Your task to perform on an android device: check data usage Image 0: 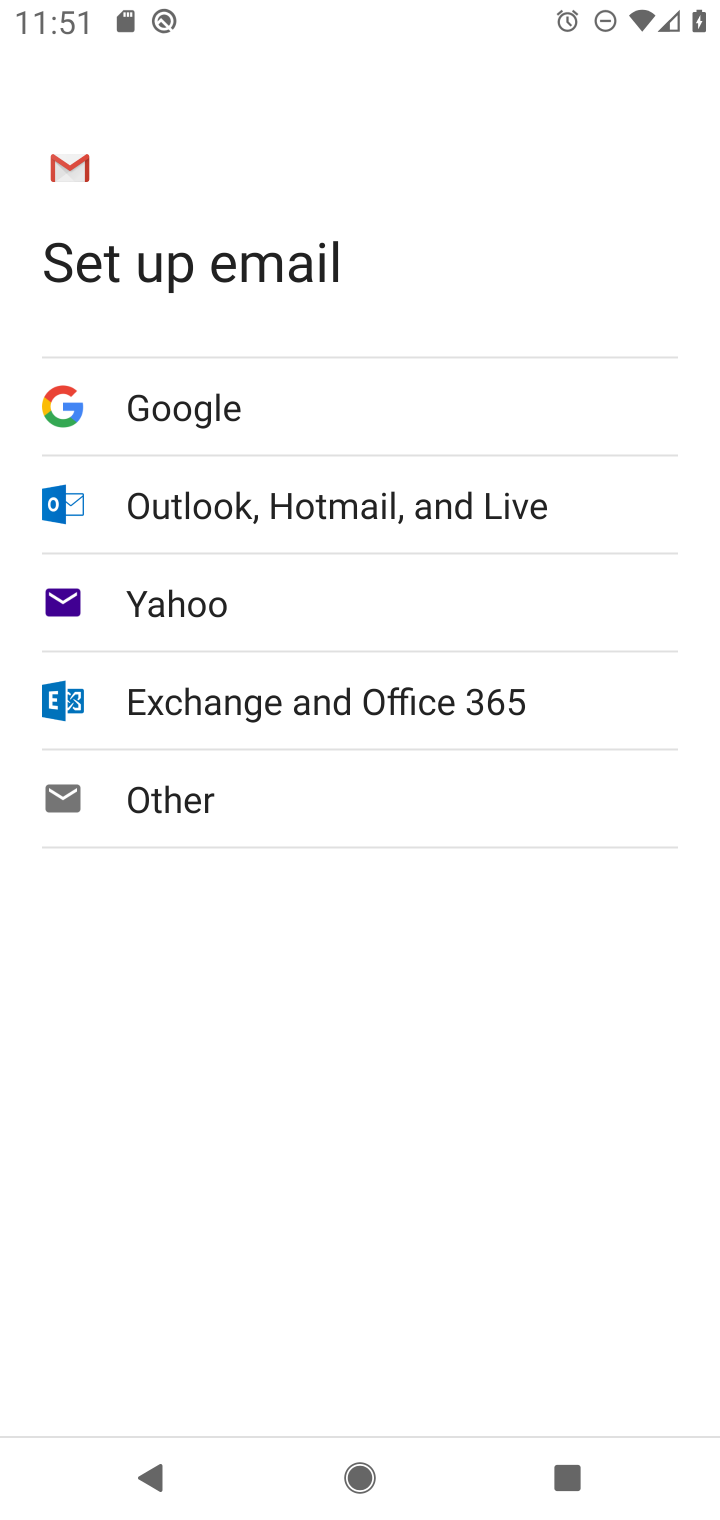
Step 0: press home button
Your task to perform on an android device: check data usage Image 1: 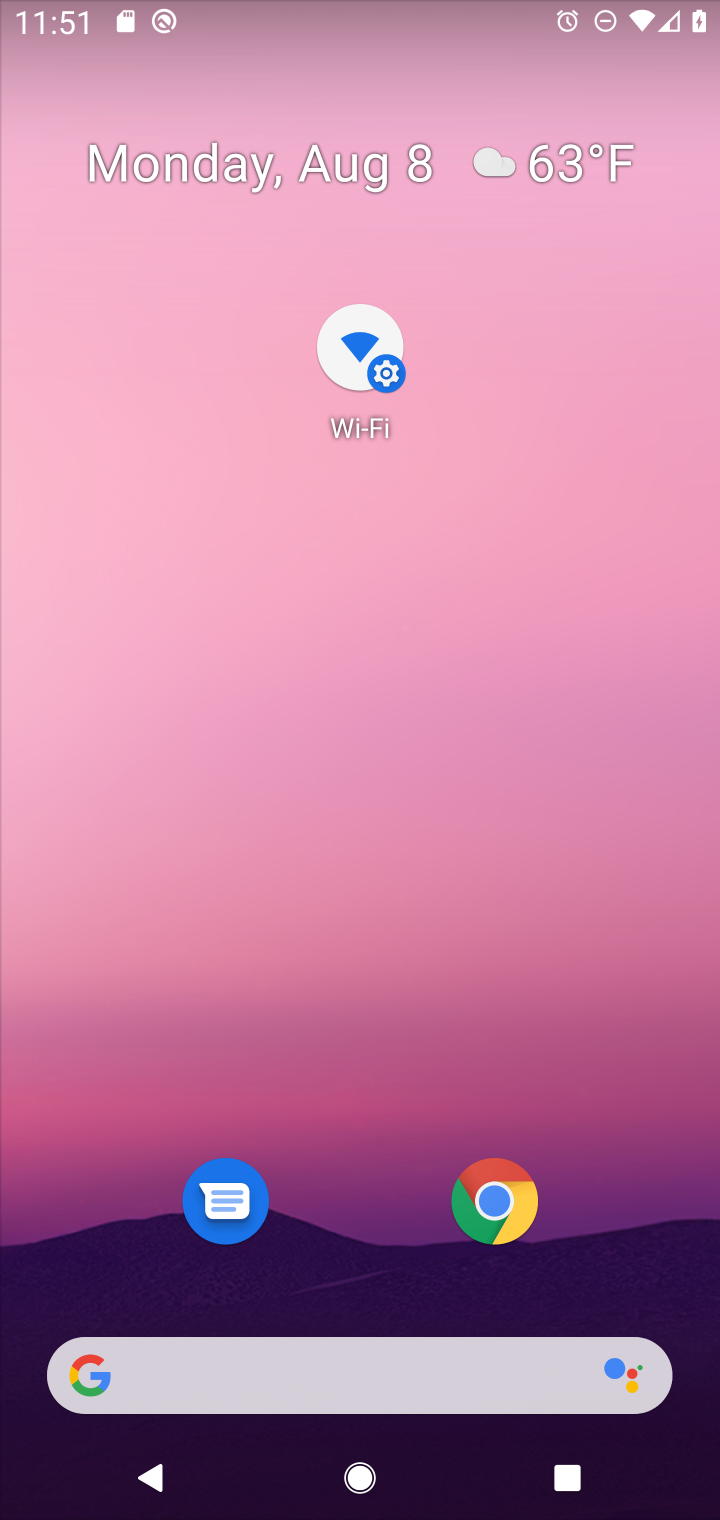
Step 1: drag from (611, 1125) to (604, 127)
Your task to perform on an android device: check data usage Image 2: 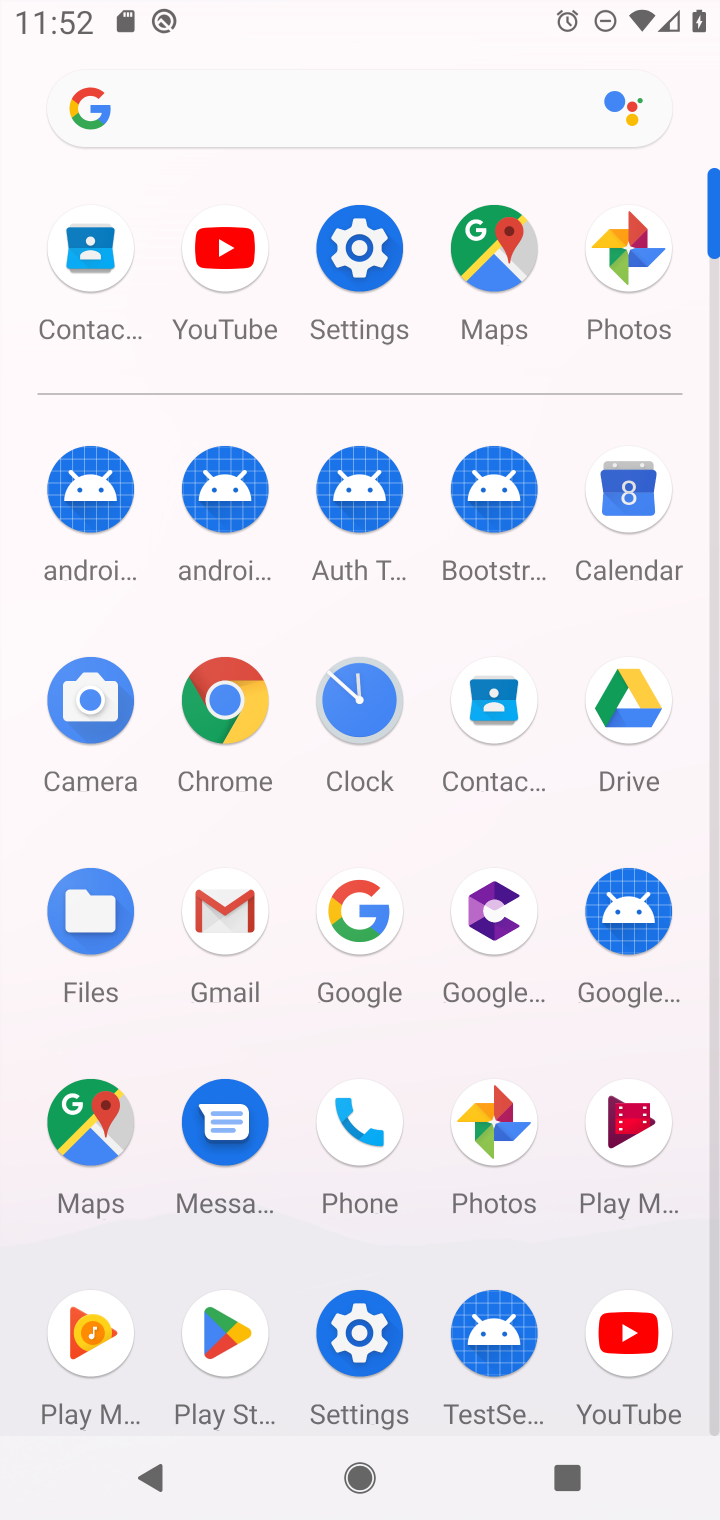
Step 2: click (357, 261)
Your task to perform on an android device: check data usage Image 3: 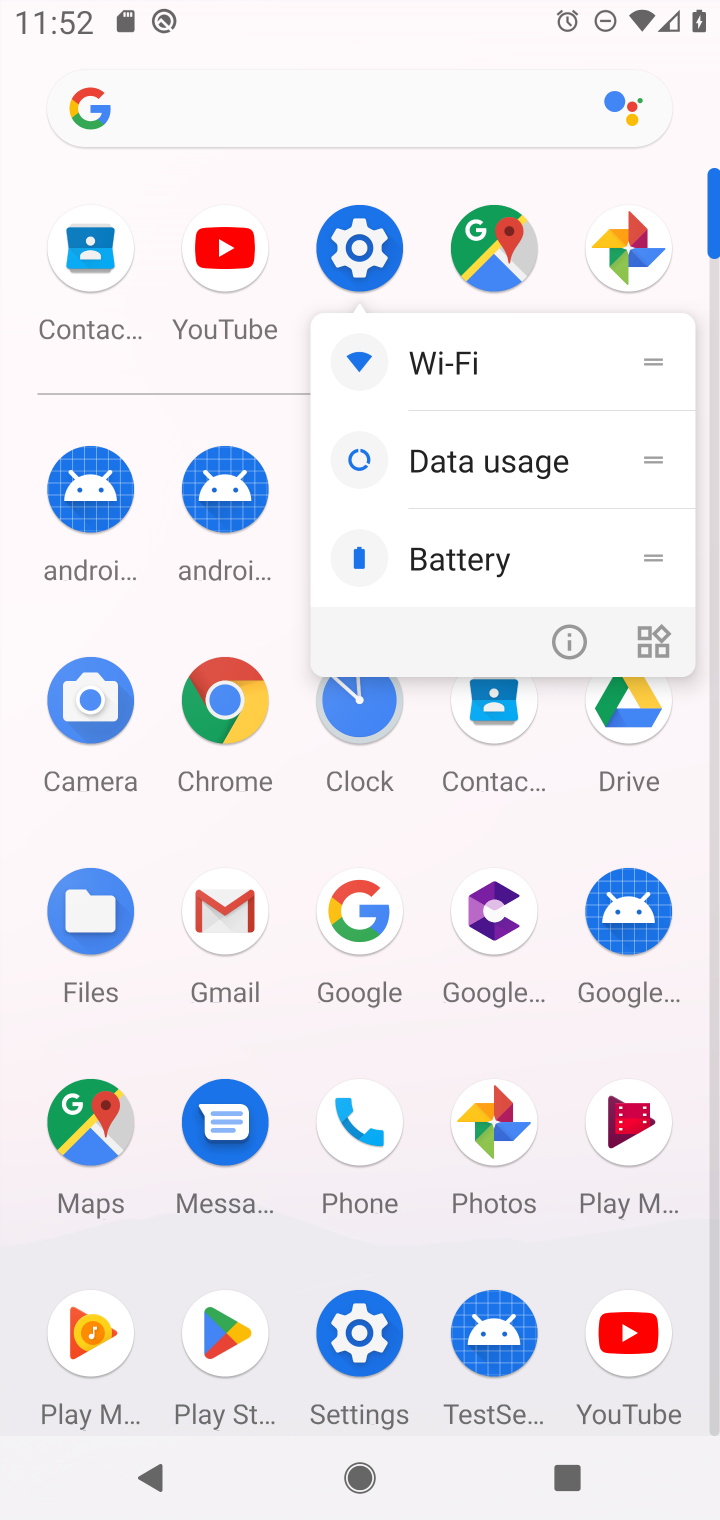
Step 3: click (357, 261)
Your task to perform on an android device: check data usage Image 4: 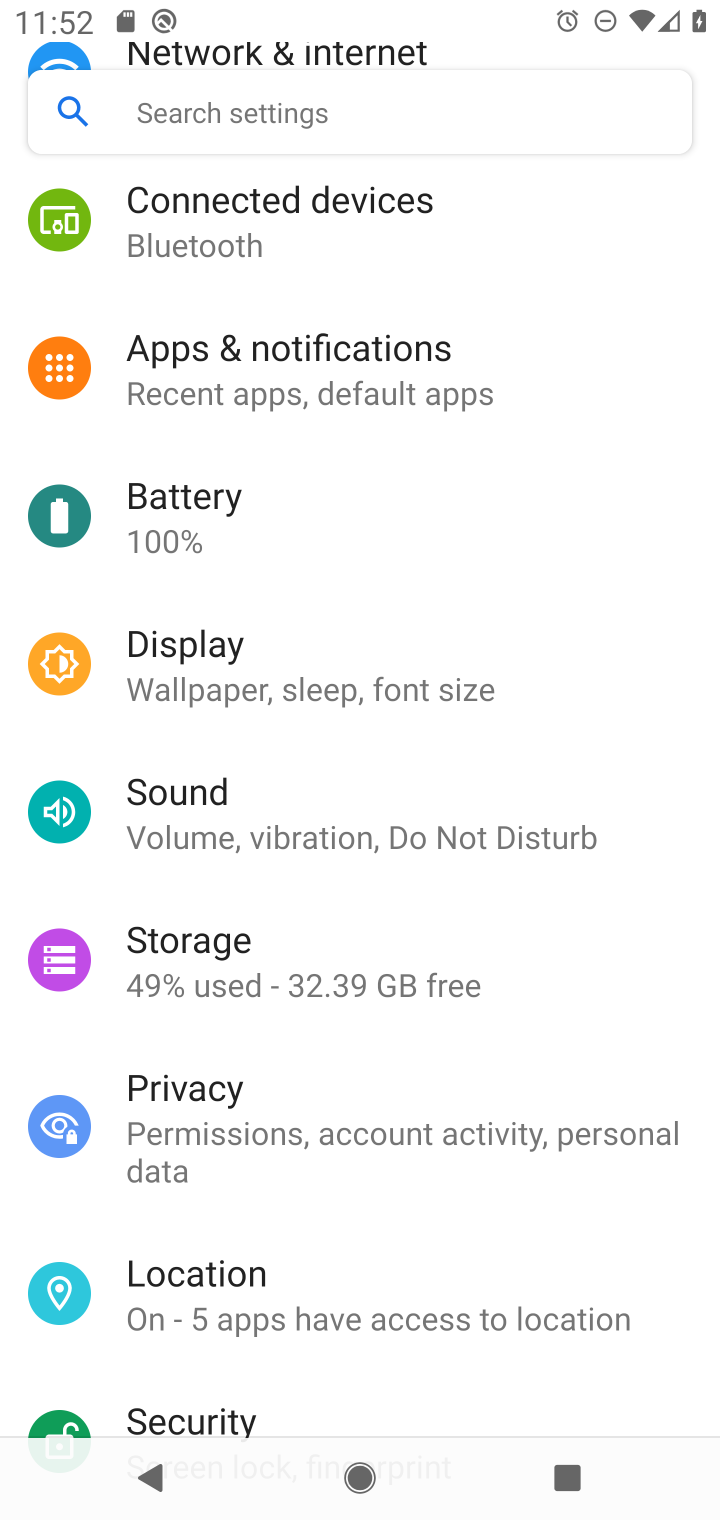
Step 4: drag from (649, 447) to (639, 812)
Your task to perform on an android device: check data usage Image 5: 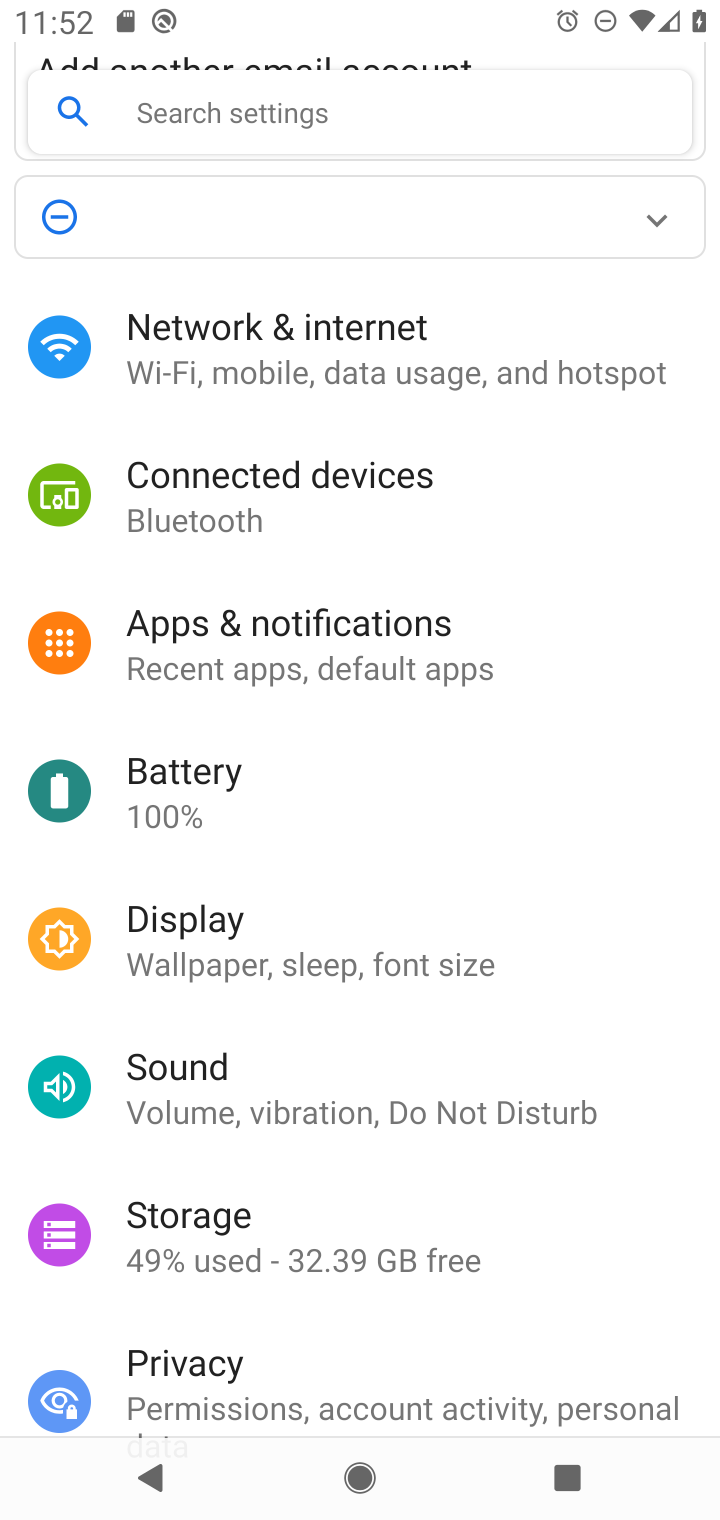
Step 5: drag from (604, 901) to (630, 482)
Your task to perform on an android device: check data usage Image 6: 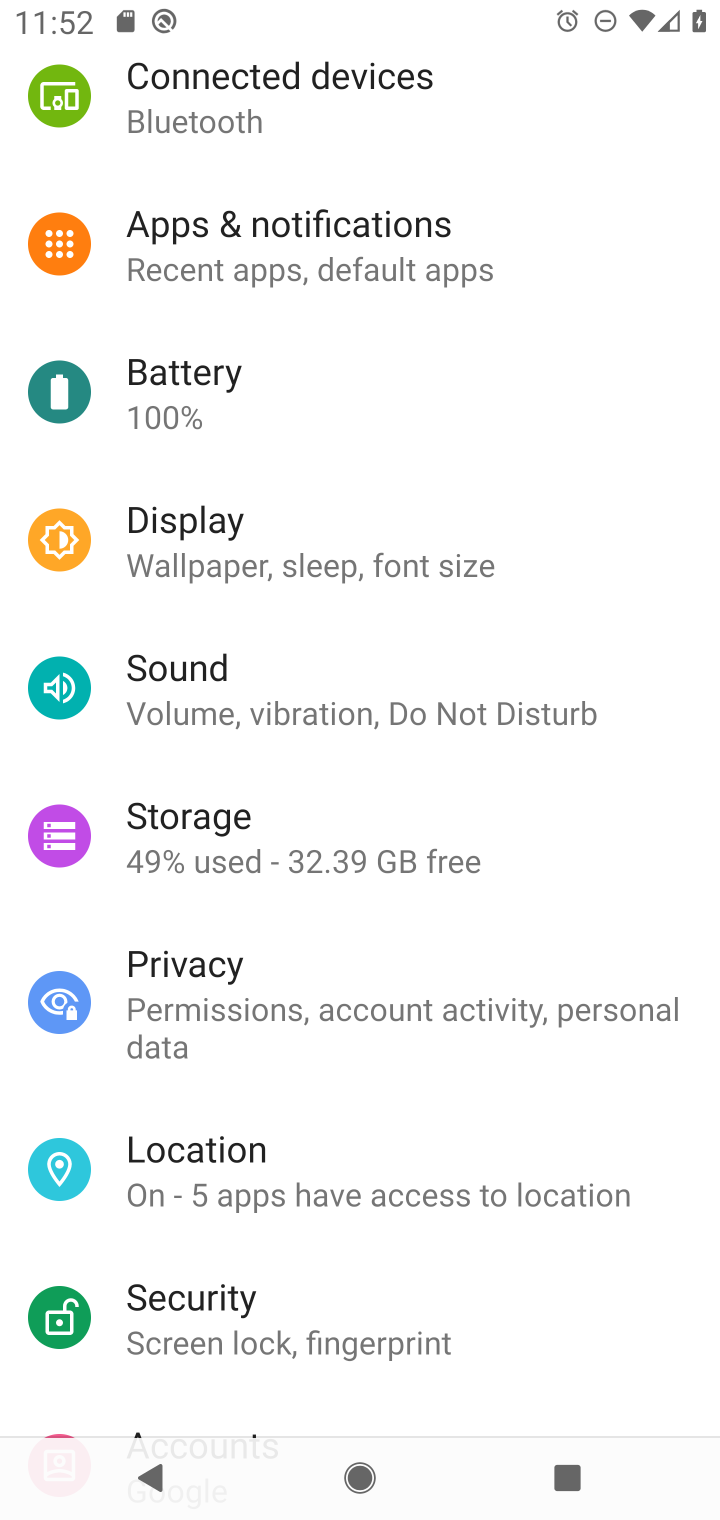
Step 6: drag from (621, 849) to (637, 459)
Your task to perform on an android device: check data usage Image 7: 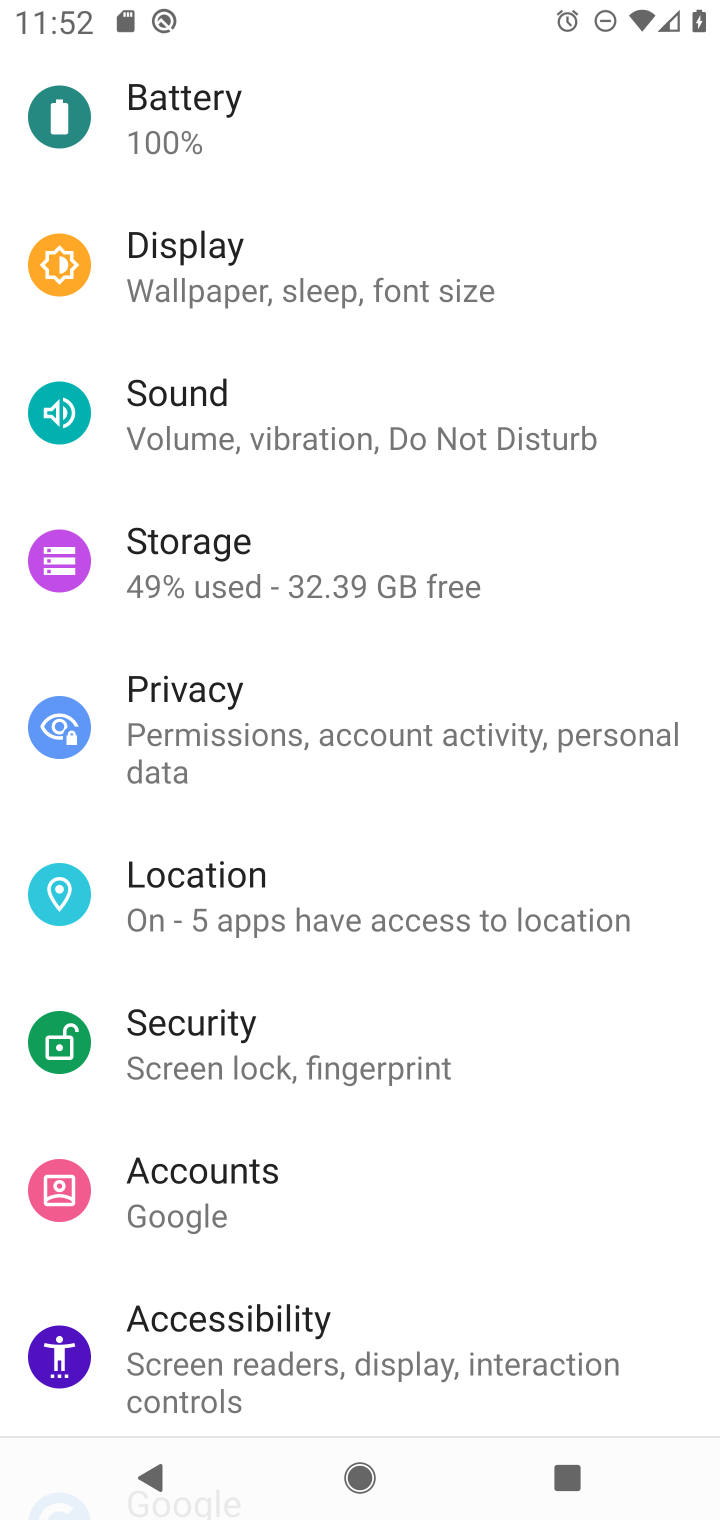
Step 7: drag from (619, 1112) to (663, 476)
Your task to perform on an android device: check data usage Image 8: 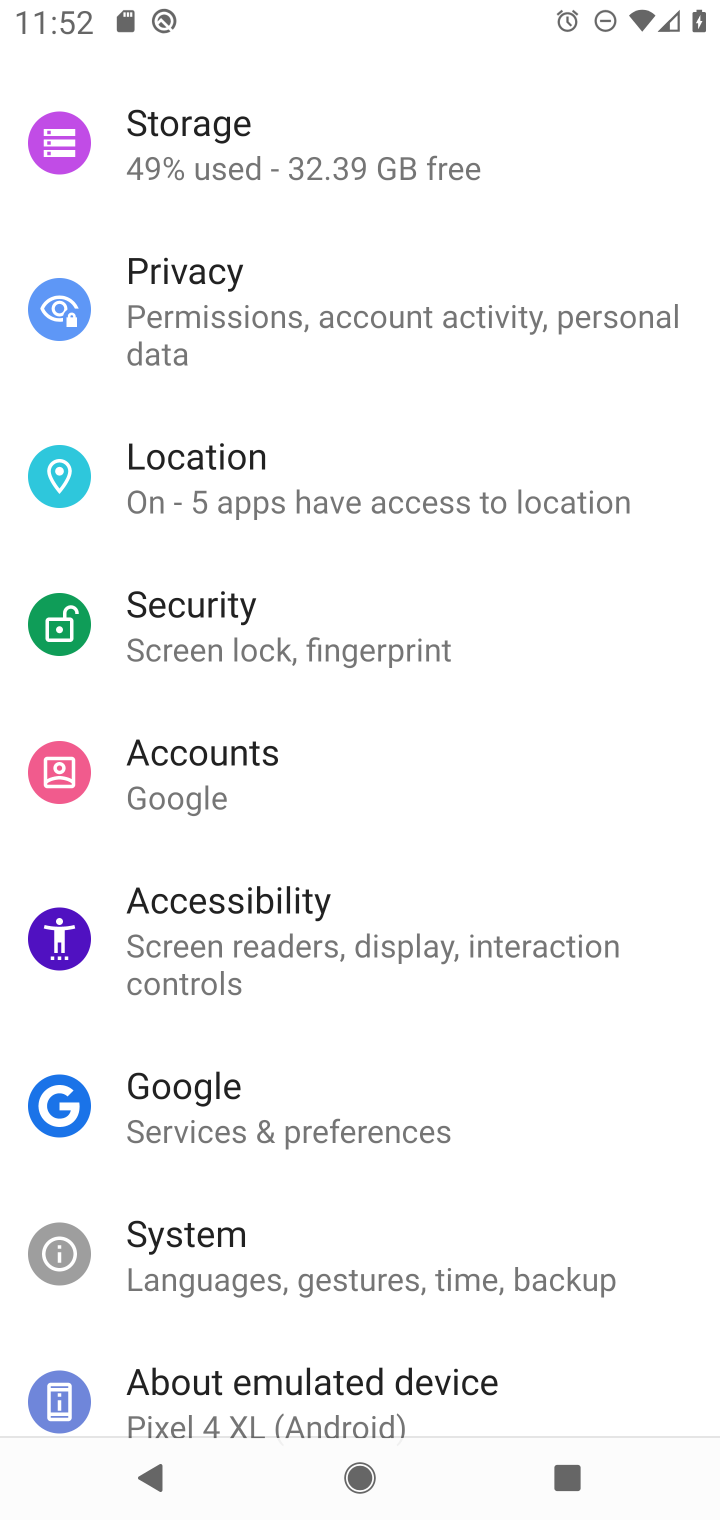
Step 8: drag from (620, 1025) to (635, 579)
Your task to perform on an android device: check data usage Image 9: 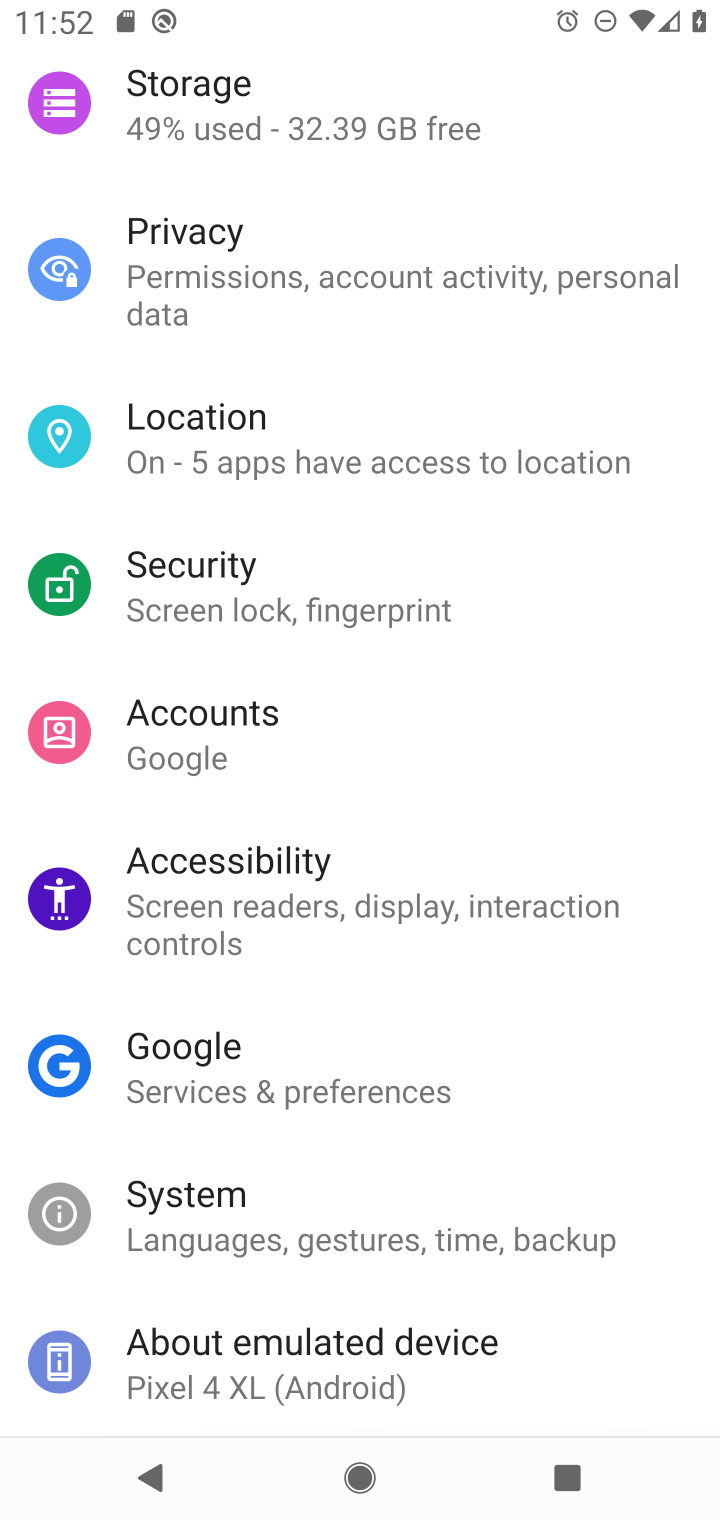
Step 9: drag from (598, 1045) to (627, 619)
Your task to perform on an android device: check data usage Image 10: 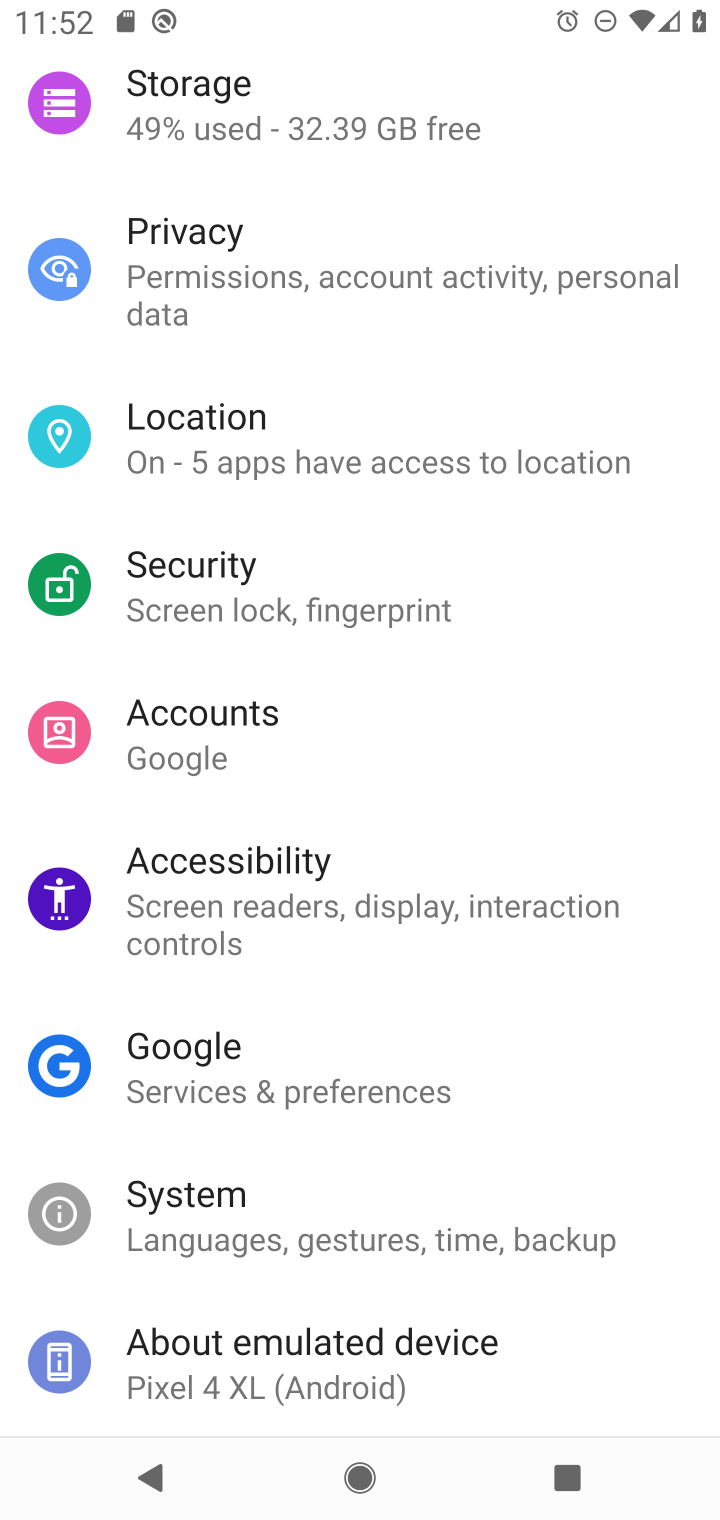
Step 10: drag from (619, 529) to (615, 892)
Your task to perform on an android device: check data usage Image 11: 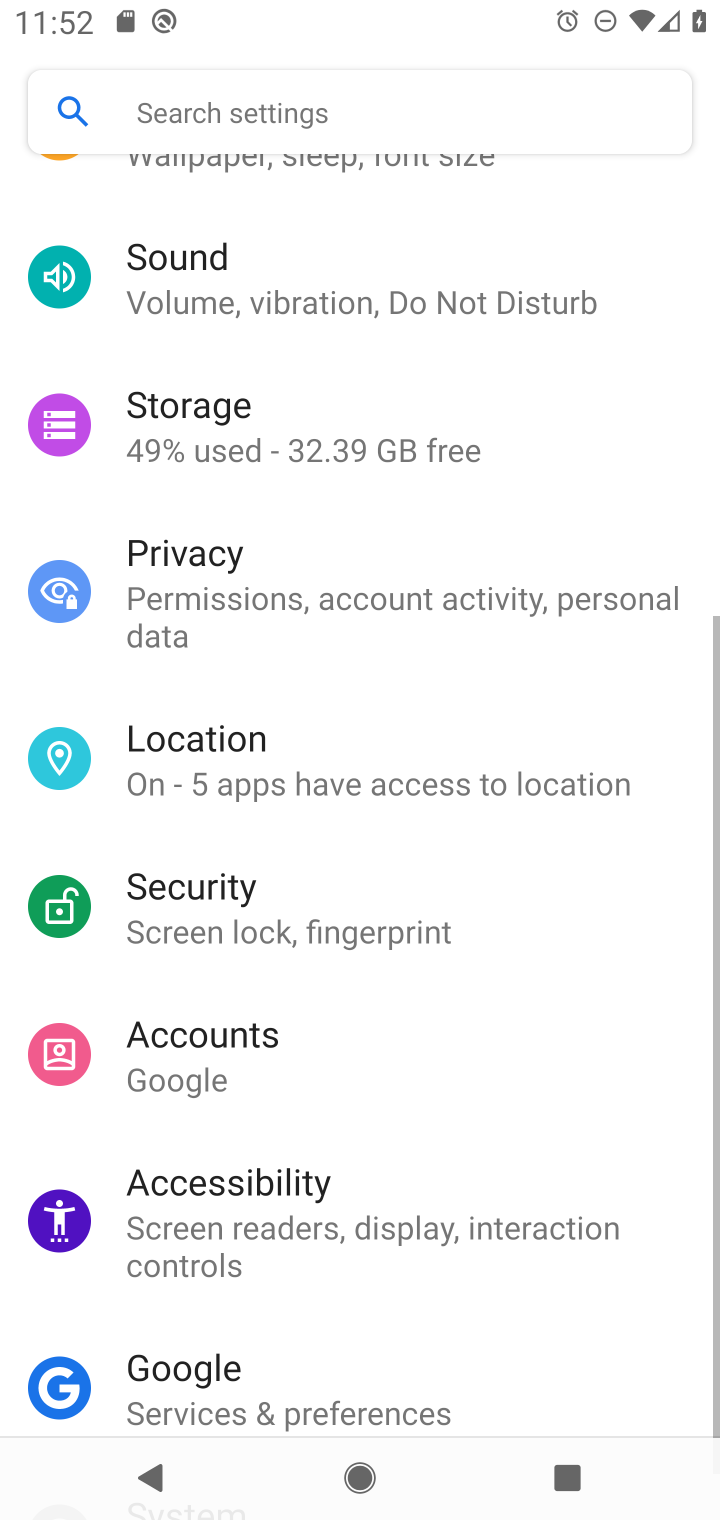
Step 11: drag from (622, 415) to (639, 919)
Your task to perform on an android device: check data usage Image 12: 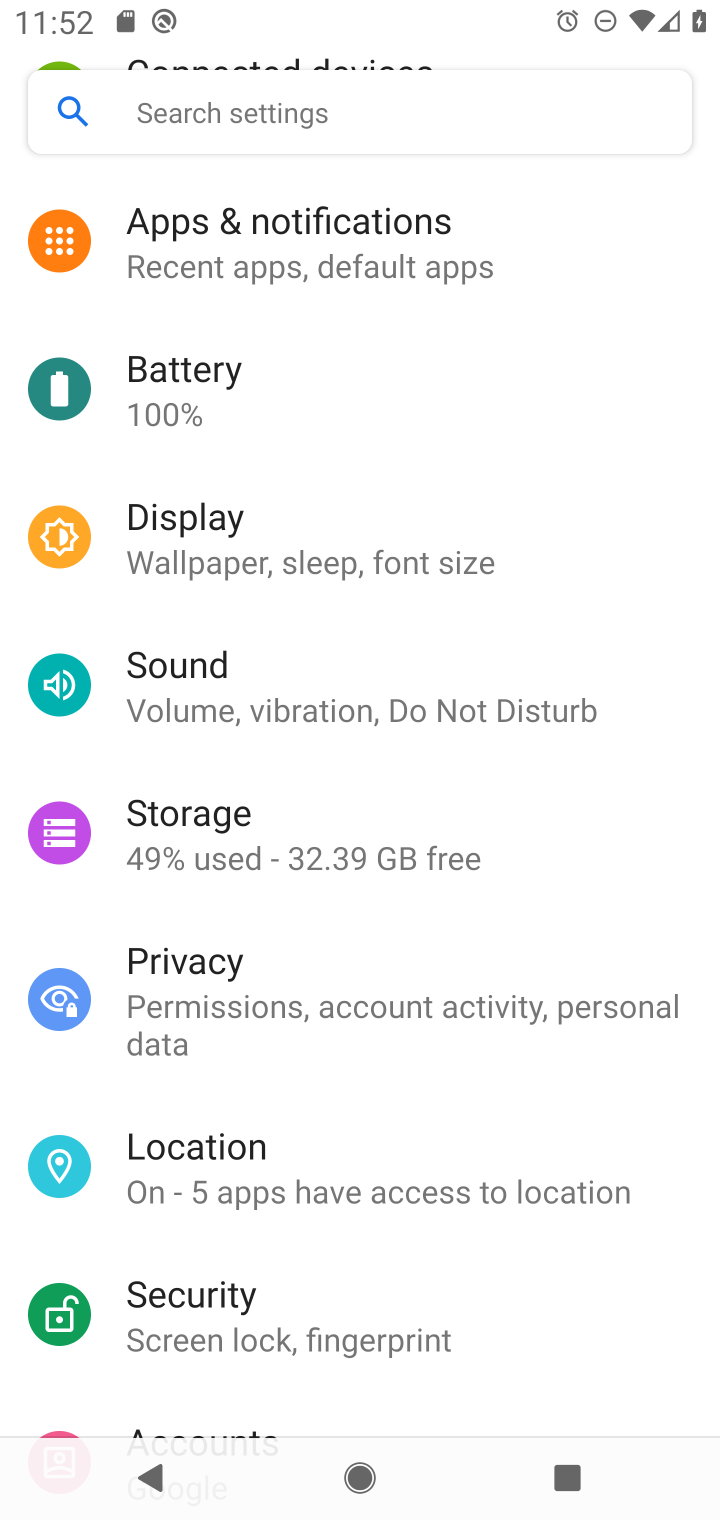
Step 12: drag from (615, 286) to (627, 923)
Your task to perform on an android device: check data usage Image 13: 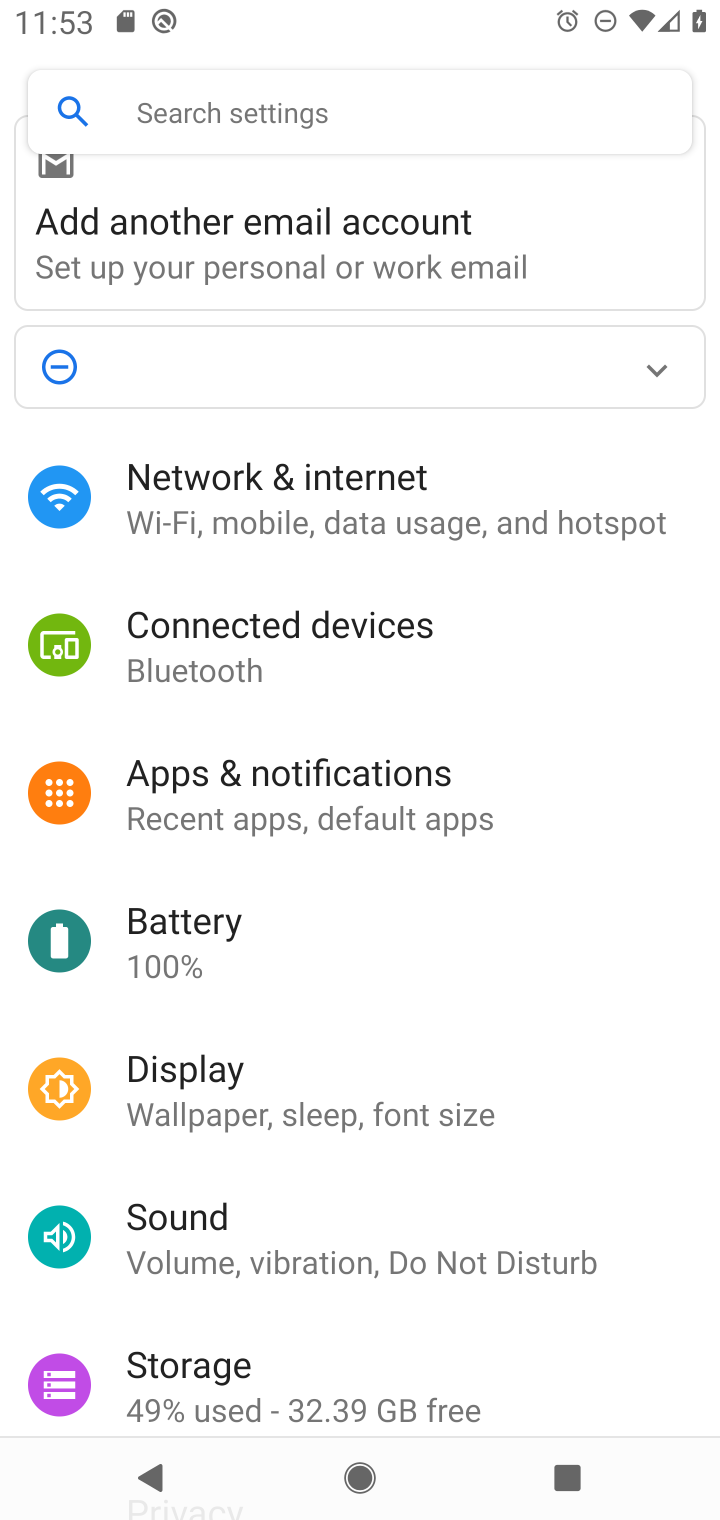
Step 13: click (370, 503)
Your task to perform on an android device: check data usage Image 14: 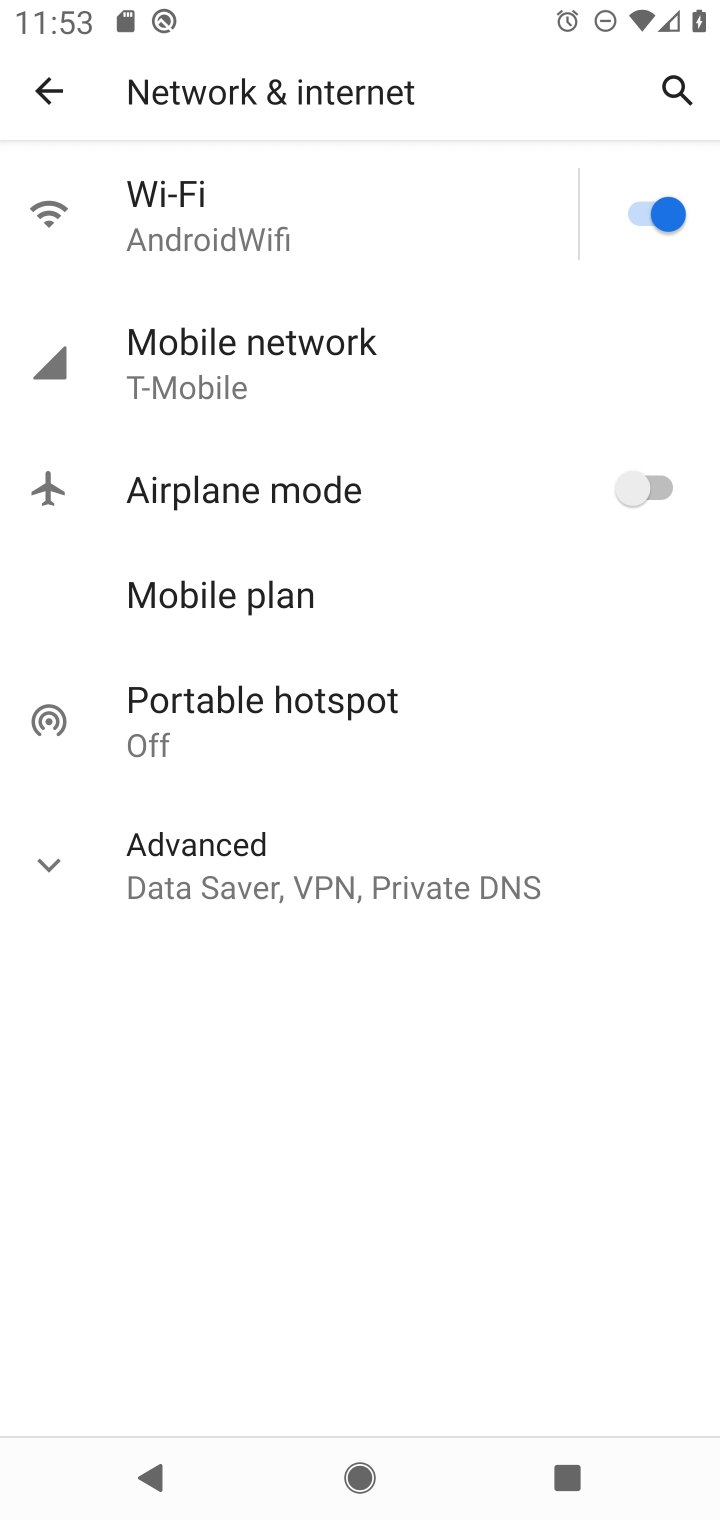
Step 14: click (233, 345)
Your task to perform on an android device: check data usage Image 15: 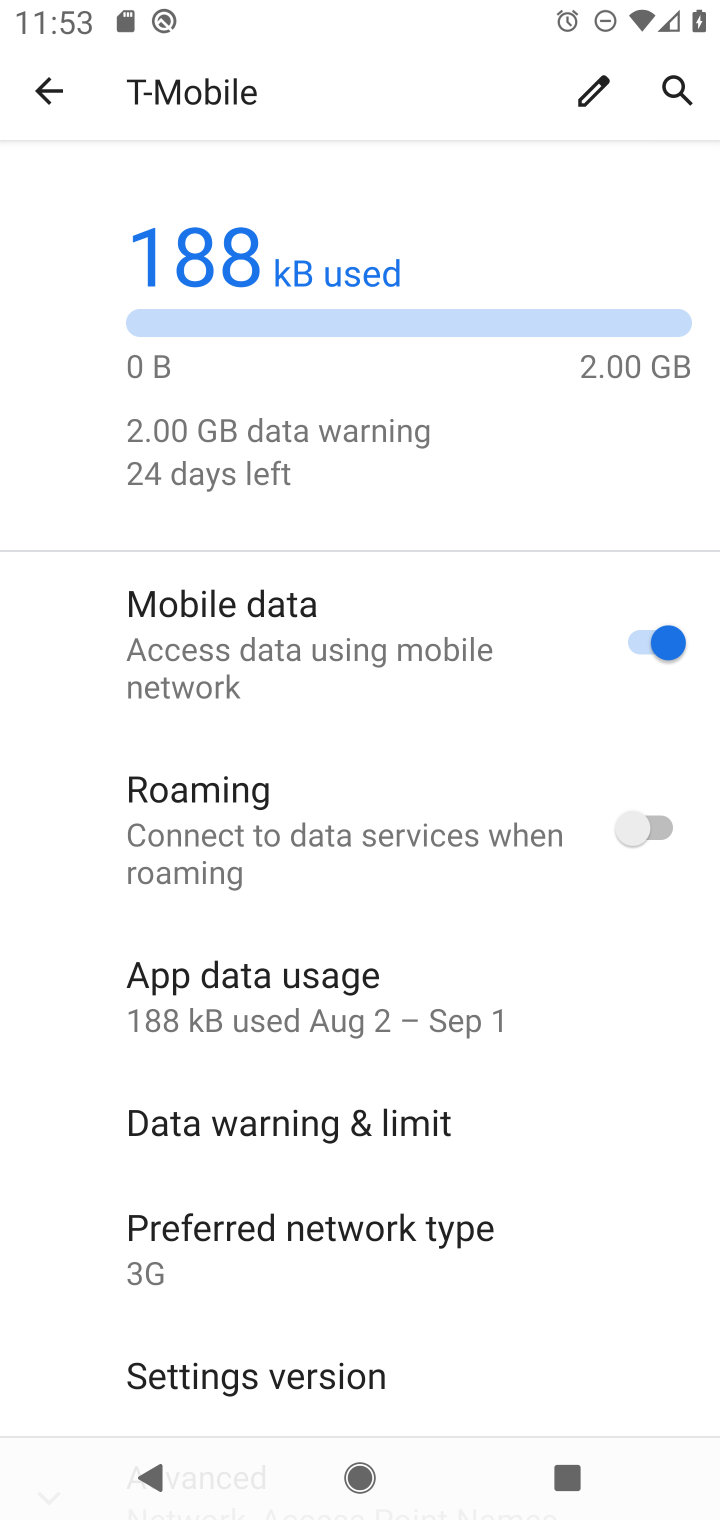
Step 15: click (497, 1016)
Your task to perform on an android device: check data usage Image 16: 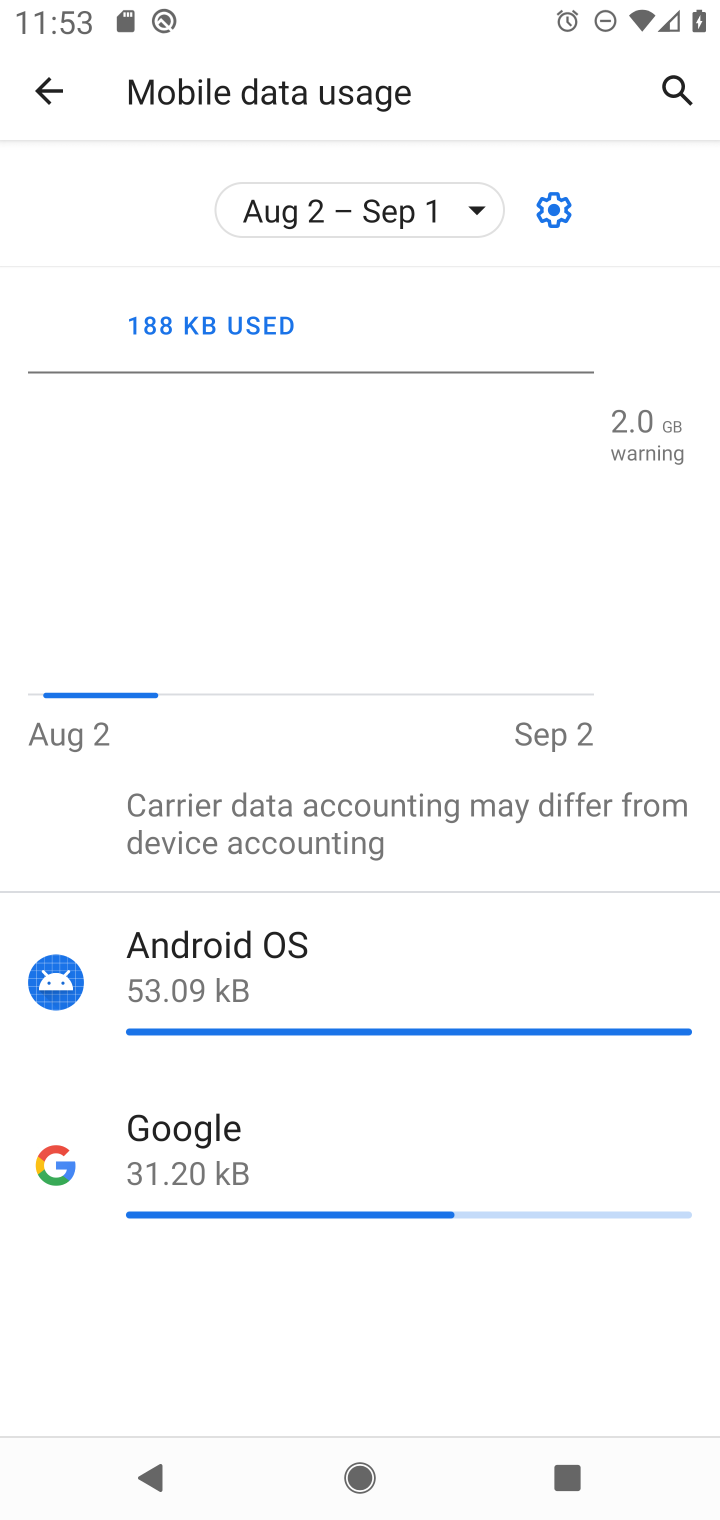
Step 16: task complete